Your task to perform on an android device: change notifications settings Image 0: 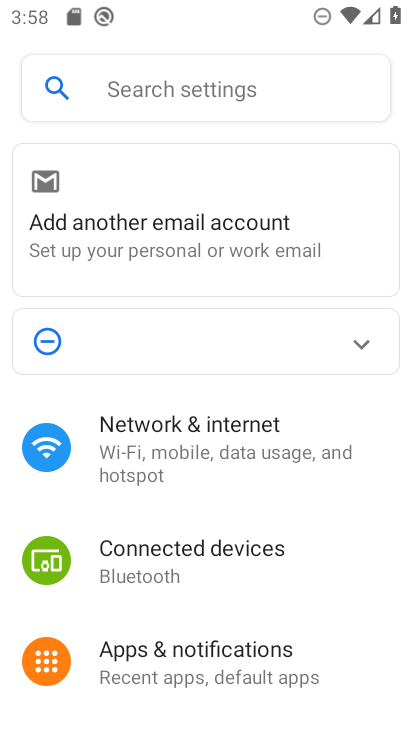
Step 0: drag from (319, 631) to (271, 269)
Your task to perform on an android device: change notifications settings Image 1: 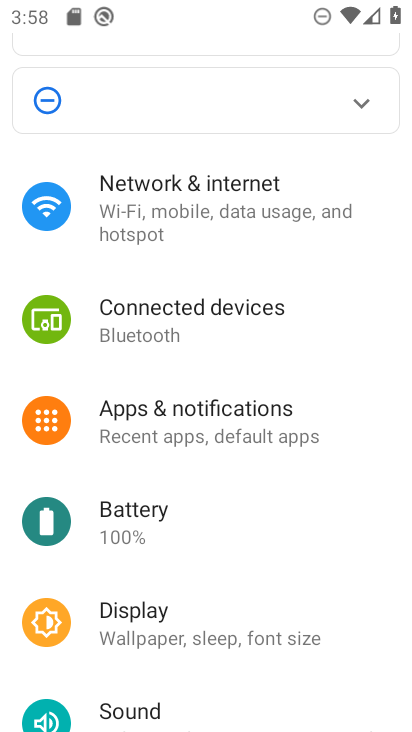
Step 1: click (240, 409)
Your task to perform on an android device: change notifications settings Image 2: 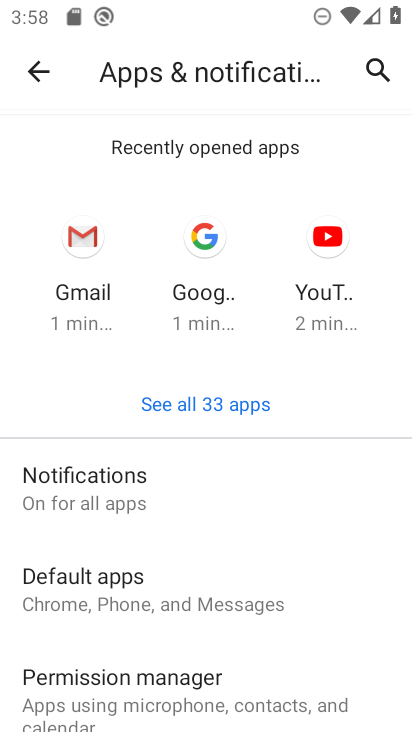
Step 2: click (191, 507)
Your task to perform on an android device: change notifications settings Image 3: 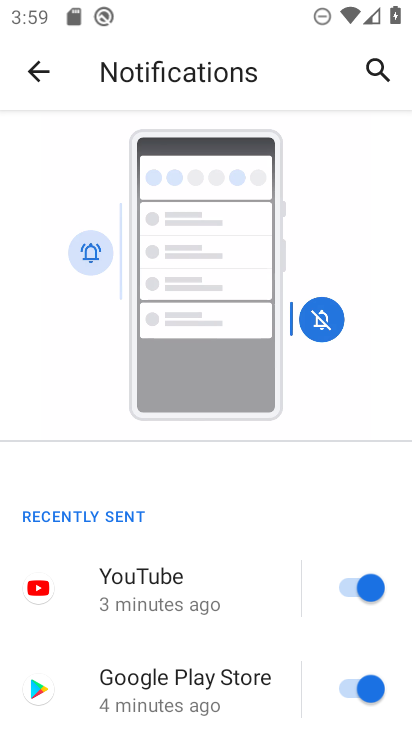
Step 3: drag from (275, 510) to (314, 120)
Your task to perform on an android device: change notifications settings Image 4: 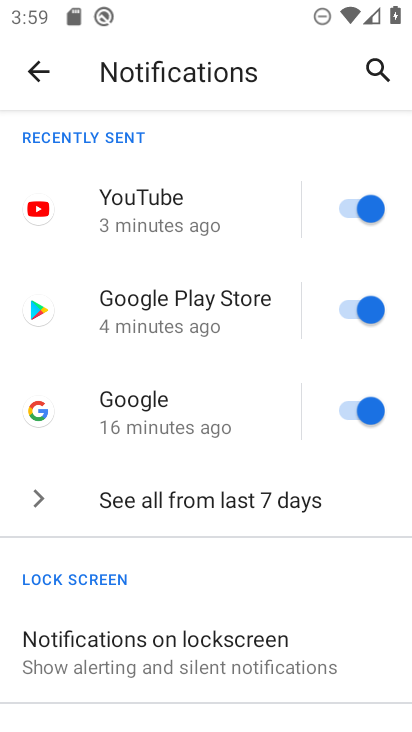
Step 4: drag from (246, 559) to (265, 116)
Your task to perform on an android device: change notifications settings Image 5: 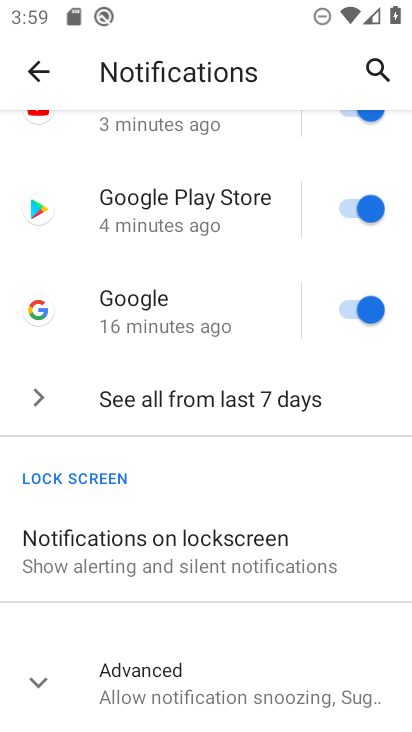
Step 5: click (259, 560)
Your task to perform on an android device: change notifications settings Image 6: 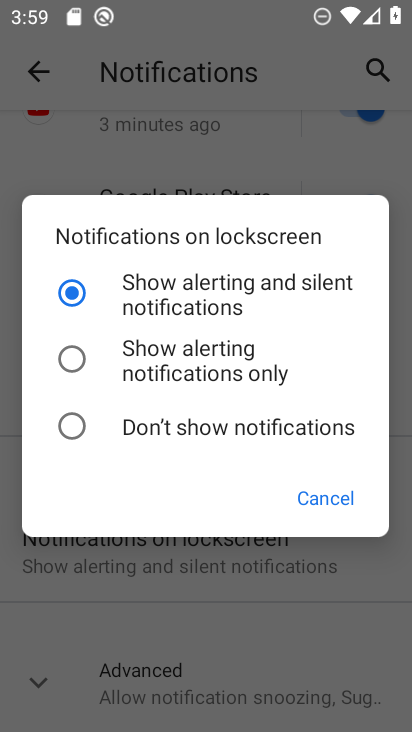
Step 6: click (78, 370)
Your task to perform on an android device: change notifications settings Image 7: 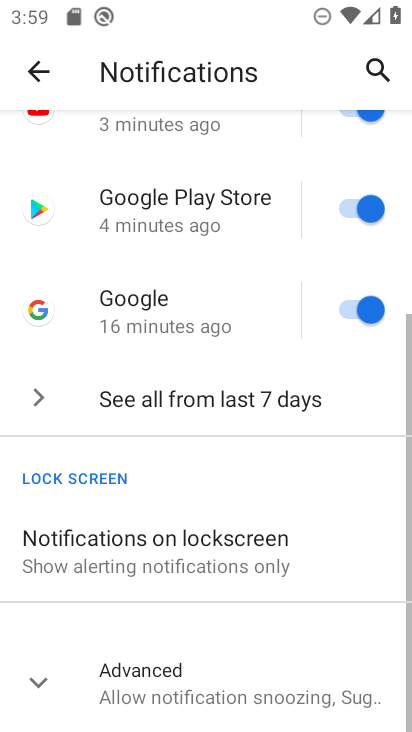
Step 7: task complete